Your task to perform on an android device: Open network settings Image 0: 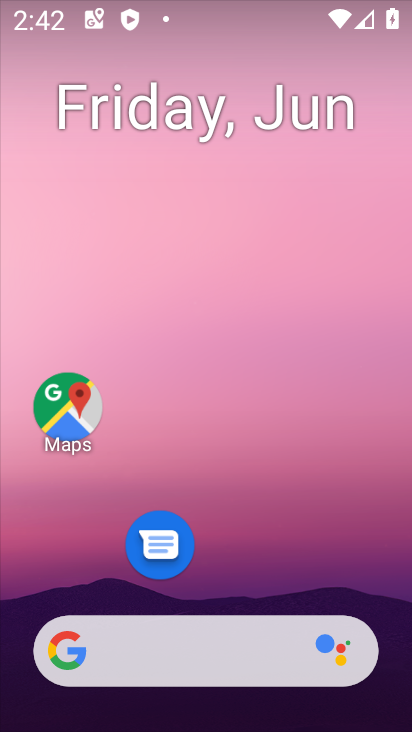
Step 0: drag from (256, 587) to (286, 0)
Your task to perform on an android device: Open network settings Image 1: 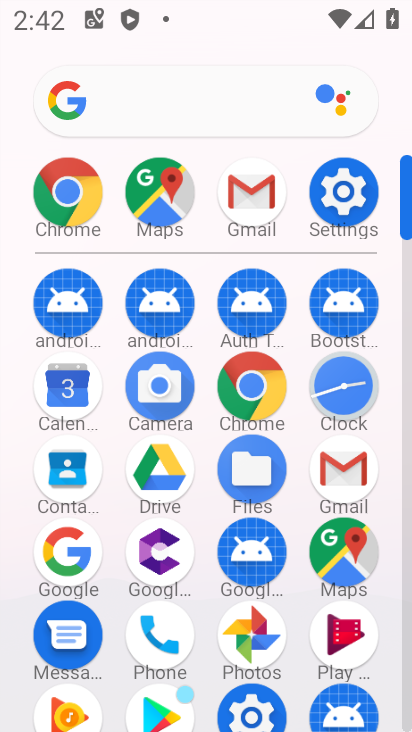
Step 1: click (348, 217)
Your task to perform on an android device: Open network settings Image 2: 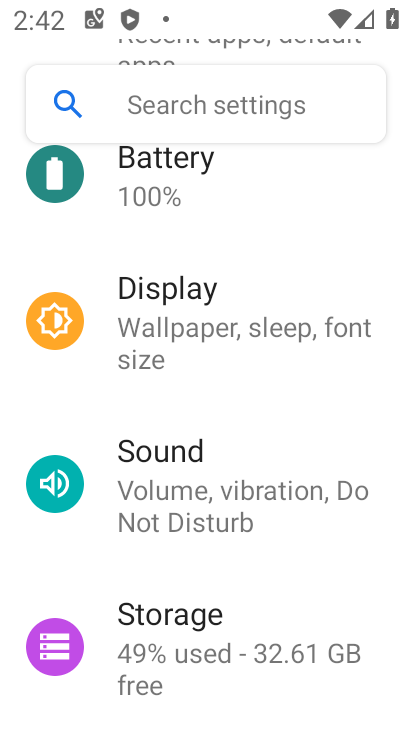
Step 2: drag from (235, 236) to (193, 674)
Your task to perform on an android device: Open network settings Image 3: 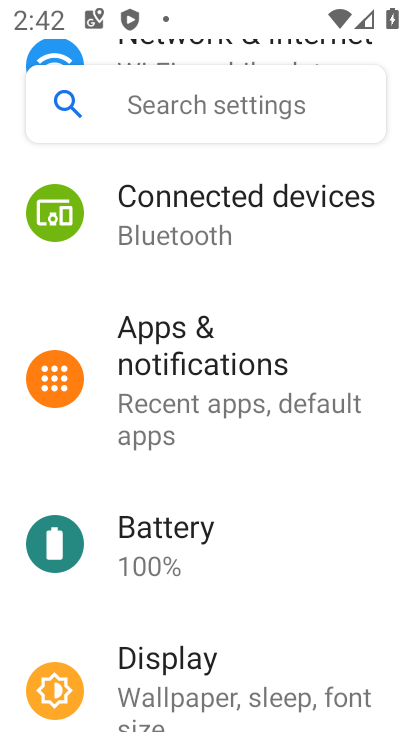
Step 3: drag from (228, 262) to (254, 721)
Your task to perform on an android device: Open network settings Image 4: 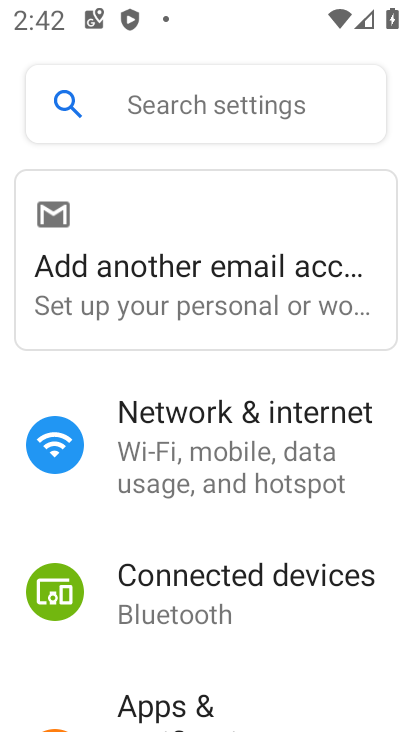
Step 4: click (244, 462)
Your task to perform on an android device: Open network settings Image 5: 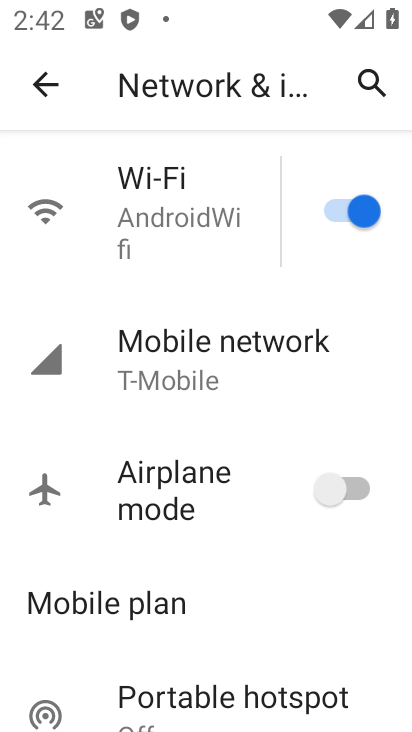
Step 5: task complete